Your task to perform on an android device: find which apps use the phone's location Image 0: 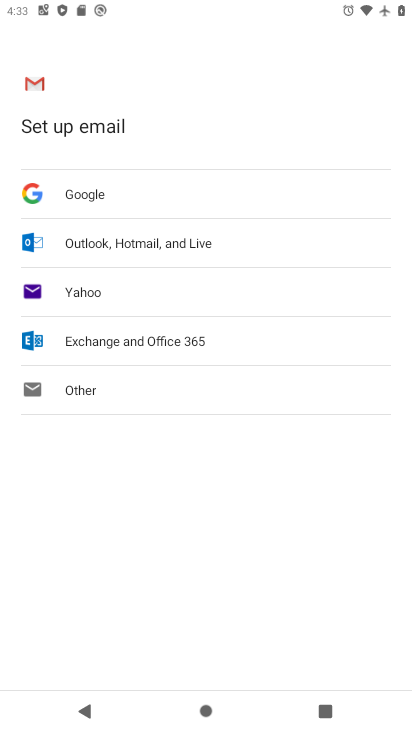
Step 0: press home button
Your task to perform on an android device: find which apps use the phone's location Image 1: 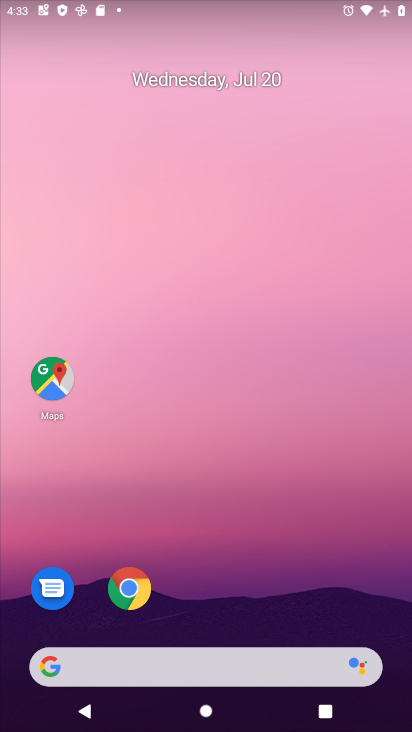
Step 1: drag from (290, 581) to (295, 3)
Your task to perform on an android device: find which apps use the phone's location Image 2: 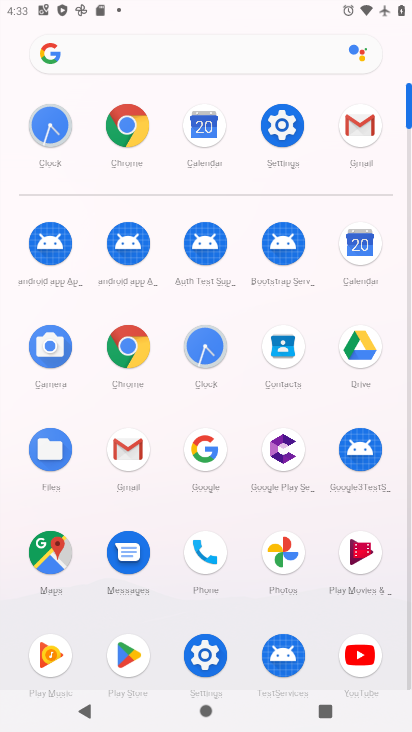
Step 2: click (272, 110)
Your task to perform on an android device: find which apps use the phone's location Image 3: 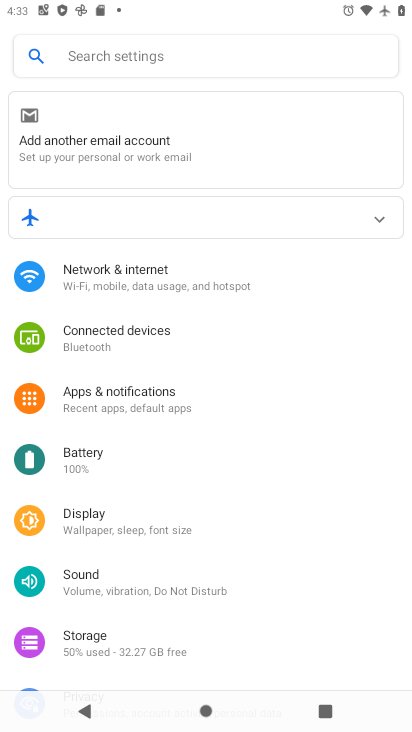
Step 3: drag from (125, 592) to (195, 225)
Your task to perform on an android device: find which apps use the phone's location Image 4: 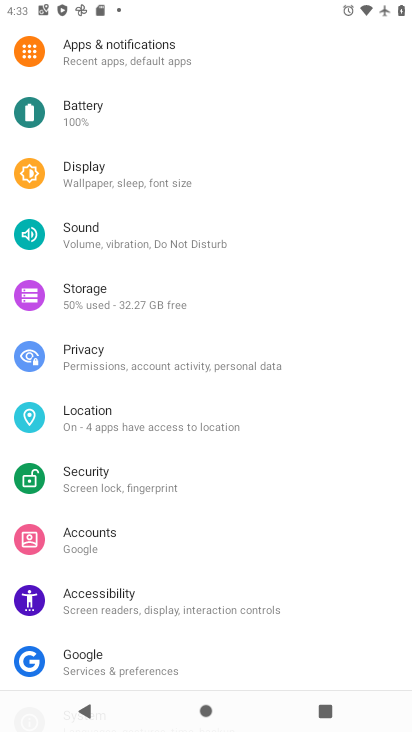
Step 4: click (92, 420)
Your task to perform on an android device: find which apps use the phone's location Image 5: 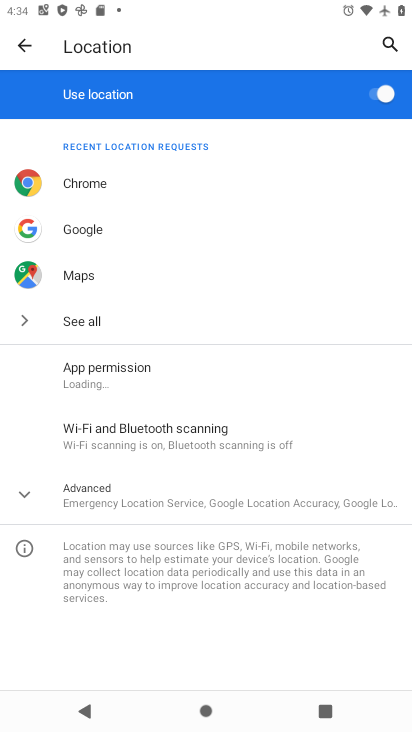
Step 5: click (133, 369)
Your task to perform on an android device: find which apps use the phone's location Image 6: 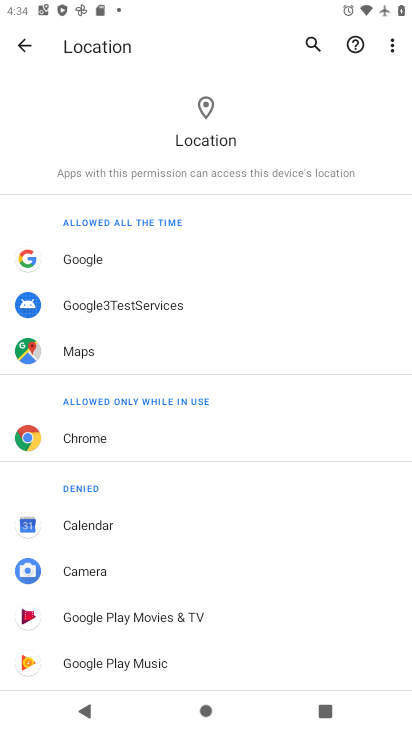
Step 6: task complete